Your task to perform on an android device: turn notification dots off Image 0: 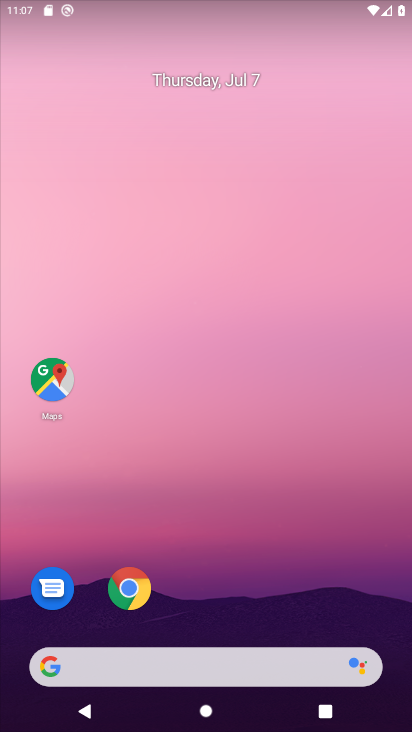
Step 0: drag from (197, 662) to (315, 81)
Your task to perform on an android device: turn notification dots off Image 1: 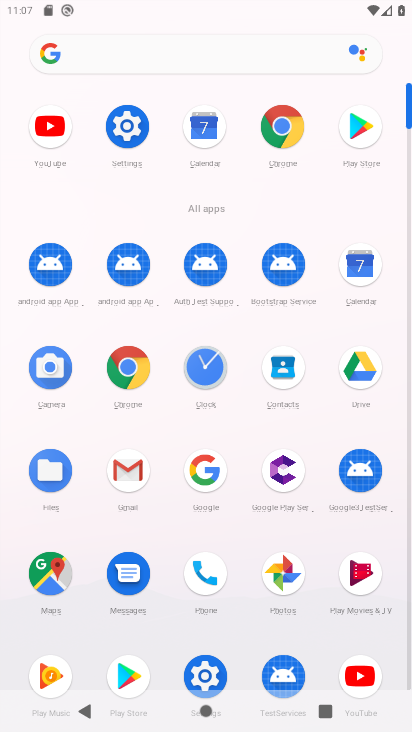
Step 1: click (136, 121)
Your task to perform on an android device: turn notification dots off Image 2: 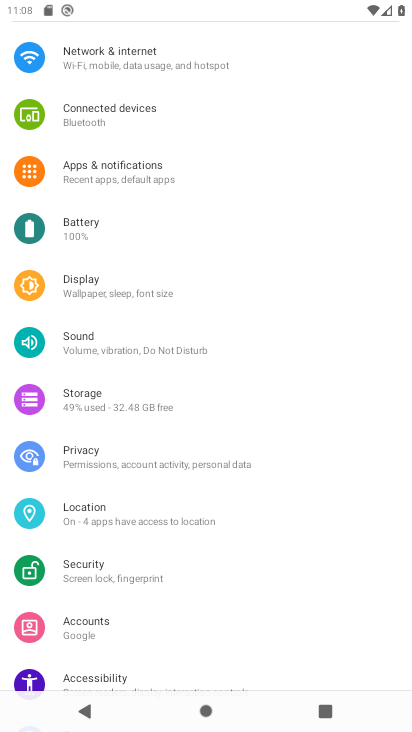
Step 2: click (135, 172)
Your task to perform on an android device: turn notification dots off Image 3: 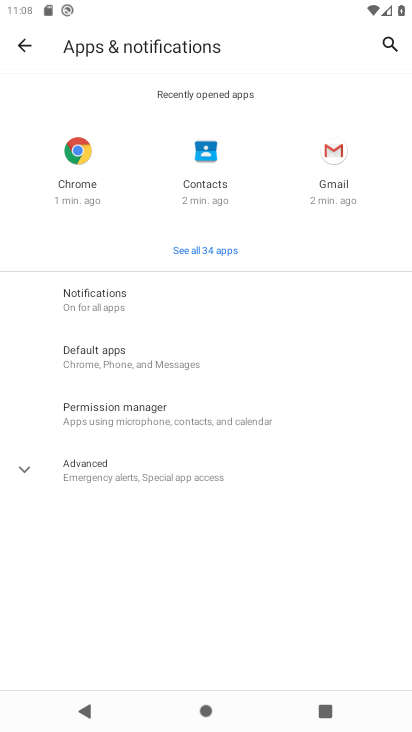
Step 3: click (97, 295)
Your task to perform on an android device: turn notification dots off Image 4: 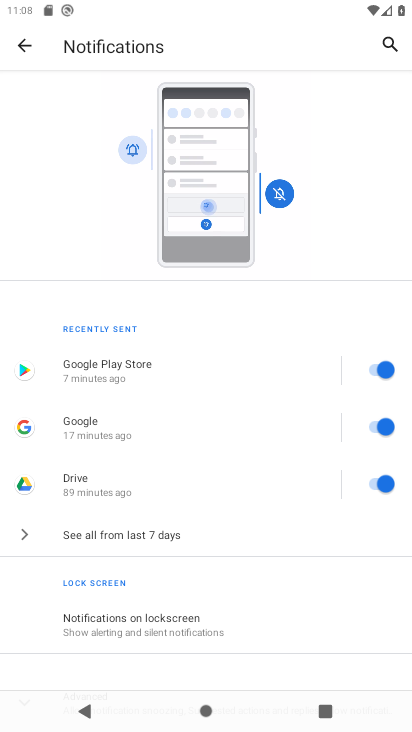
Step 4: drag from (189, 581) to (195, 75)
Your task to perform on an android device: turn notification dots off Image 5: 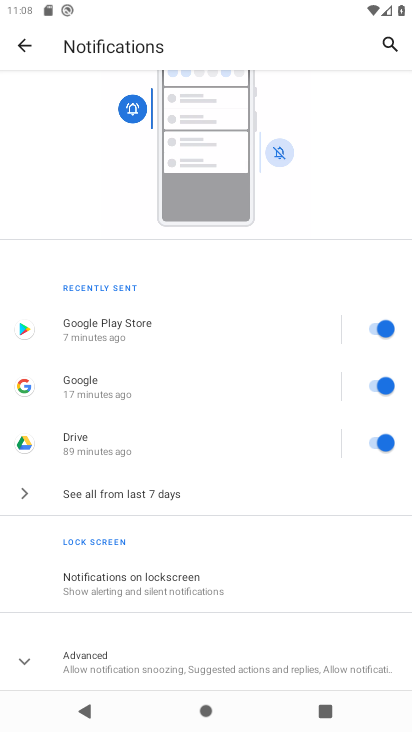
Step 5: click (102, 664)
Your task to perform on an android device: turn notification dots off Image 6: 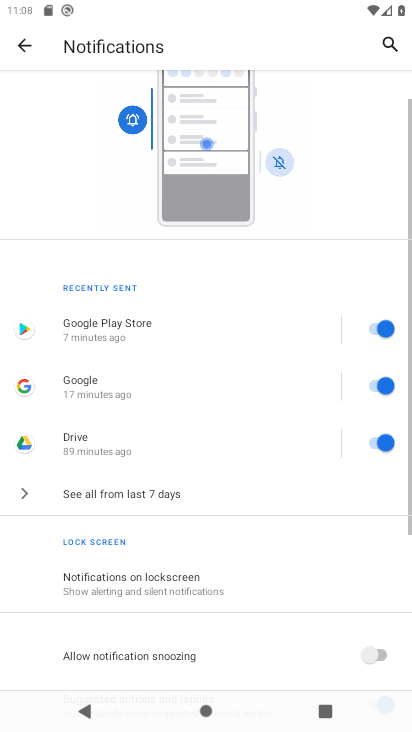
Step 6: drag from (224, 624) to (326, 209)
Your task to perform on an android device: turn notification dots off Image 7: 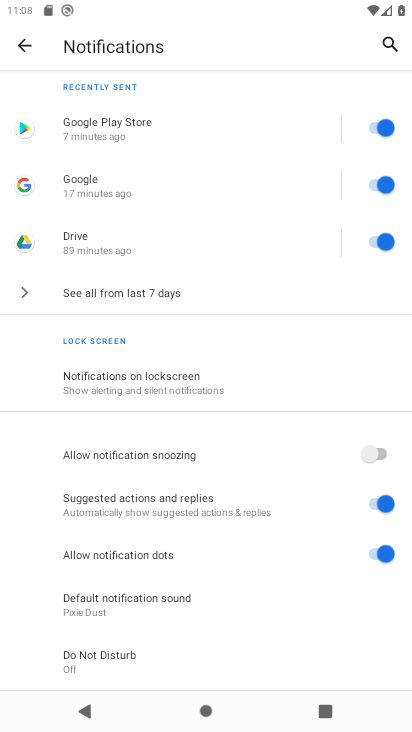
Step 7: click (376, 550)
Your task to perform on an android device: turn notification dots off Image 8: 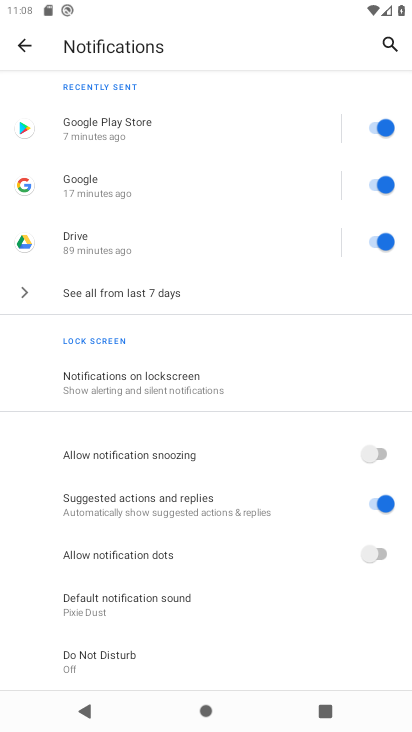
Step 8: task complete